Your task to perform on an android device: Google the capital of Paraguay Image 0: 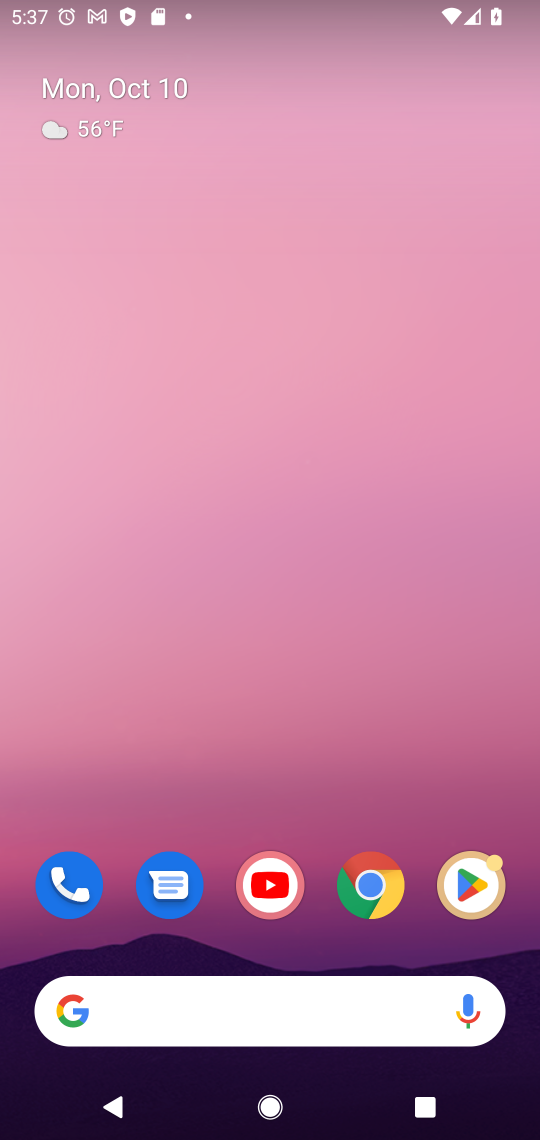
Step 0: click (283, 1026)
Your task to perform on an android device: Google the capital of Paraguay Image 1: 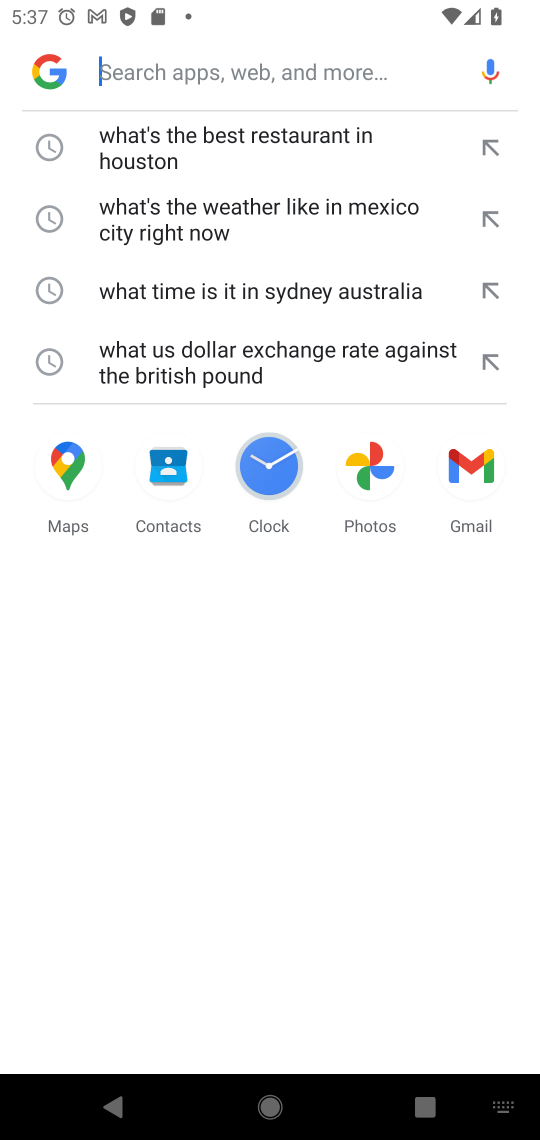
Step 1: type " capital of Paraguay"
Your task to perform on an android device: Google the capital of Paraguay Image 2: 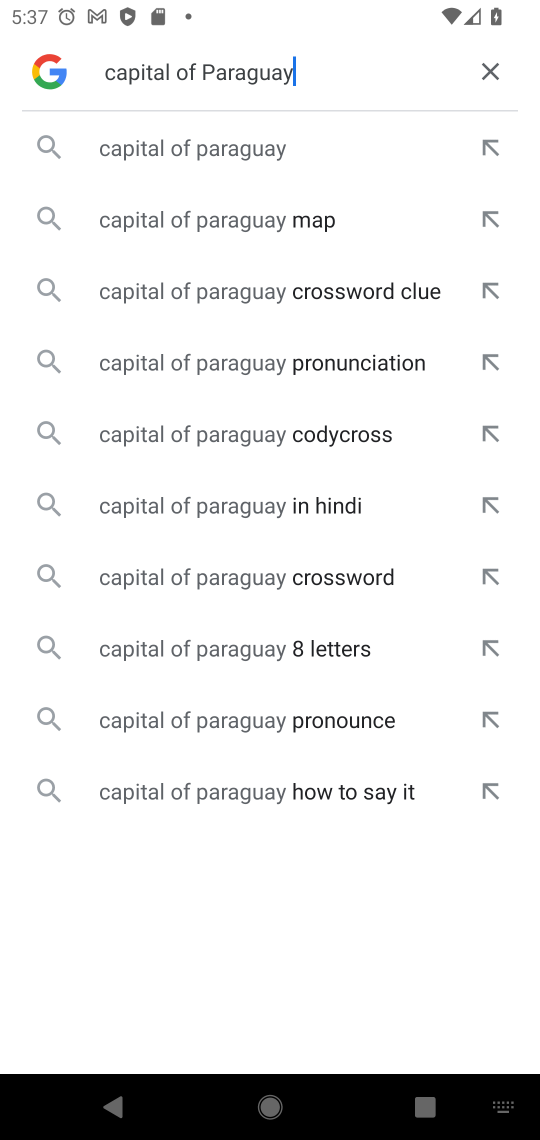
Step 2: click (195, 153)
Your task to perform on an android device: Google the capital of Paraguay Image 3: 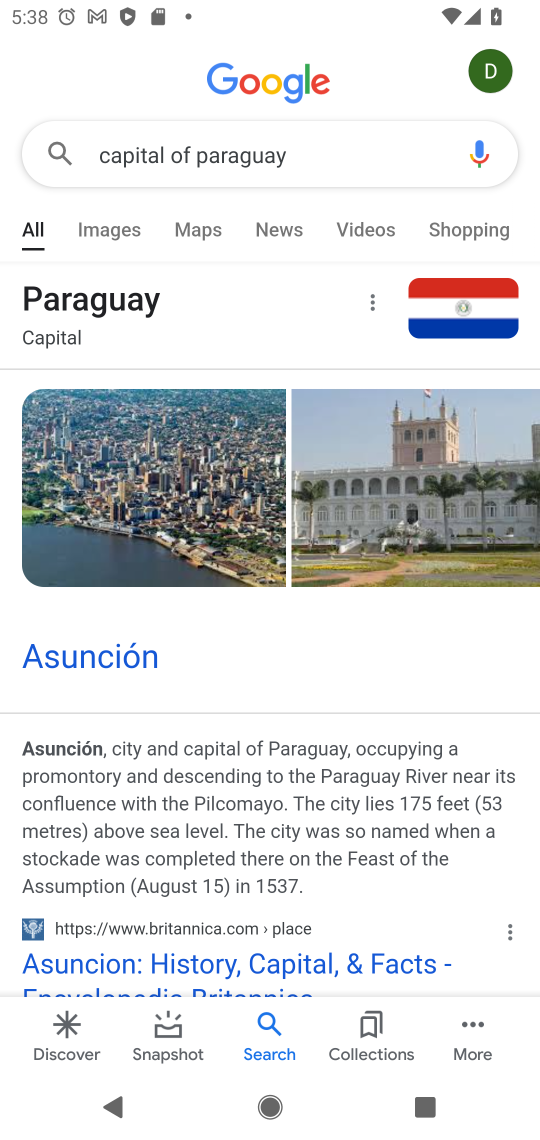
Step 3: task complete